Your task to perform on an android device: Show me popular videos on Youtube Image 0: 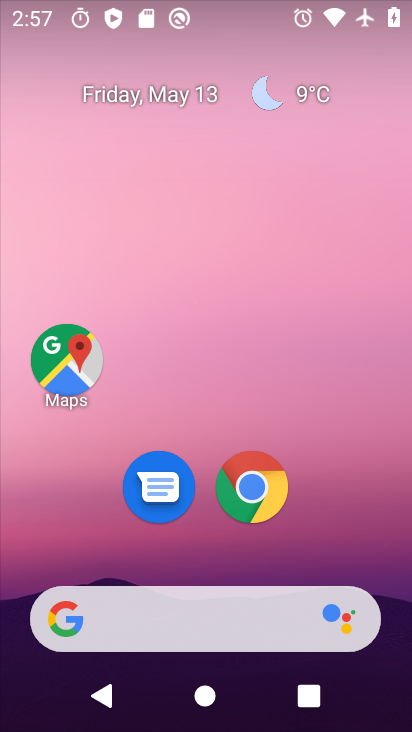
Step 0: drag from (231, 549) to (246, 123)
Your task to perform on an android device: Show me popular videos on Youtube Image 1: 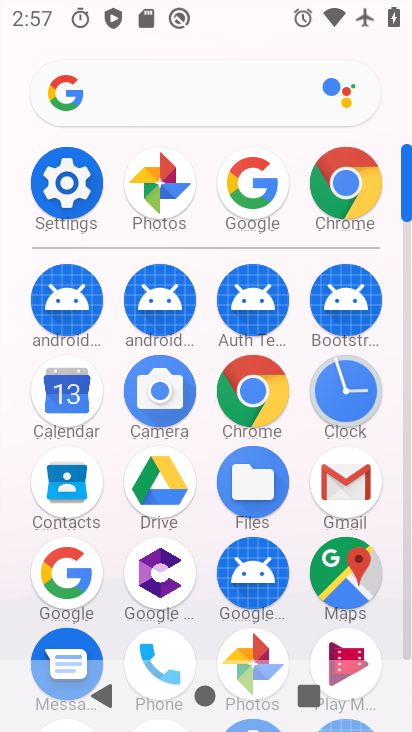
Step 1: drag from (209, 524) to (256, 86)
Your task to perform on an android device: Show me popular videos on Youtube Image 2: 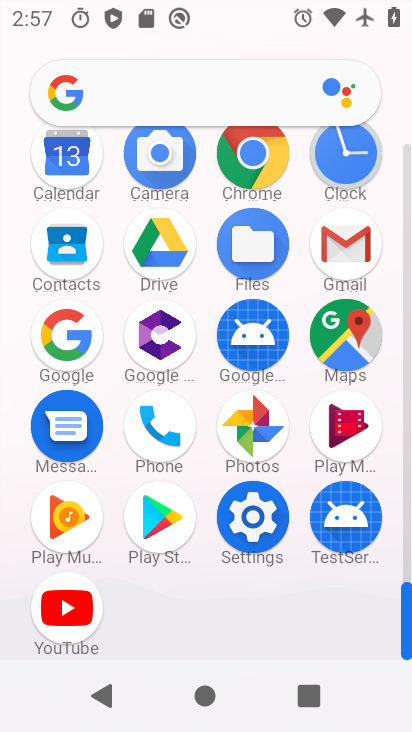
Step 2: click (69, 616)
Your task to perform on an android device: Show me popular videos on Youtube Image 3: 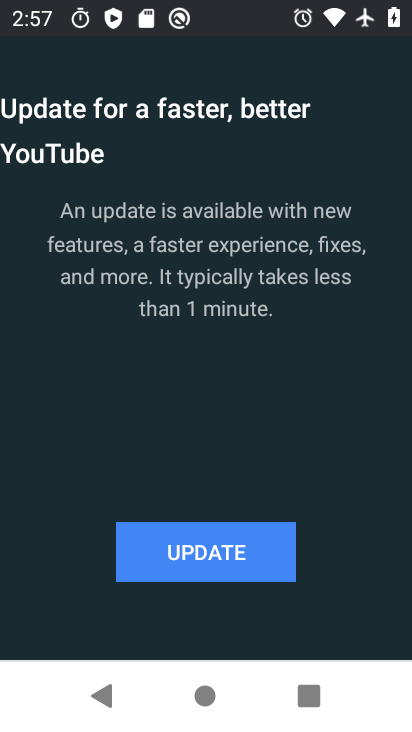
Step 3: click (203, 550)
Your task to perform on an android device: Show me popular videos on Youtube Image 4: 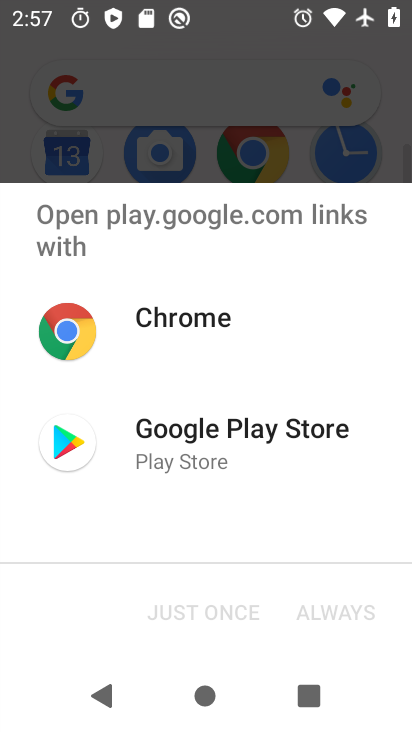
Step 4: click (194, 425)
Your task to perform on an android device: Show me popular videos on Youtube Image 5: 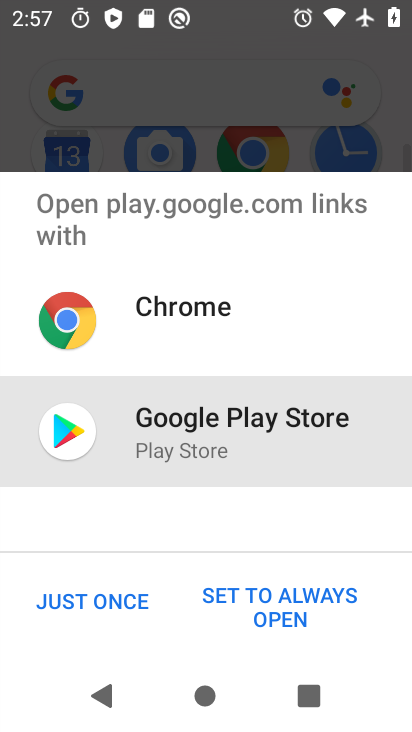
Step 5: click (135, 606)
Your task to perform on an android device: Show me popular videos on Youtube Image 6: 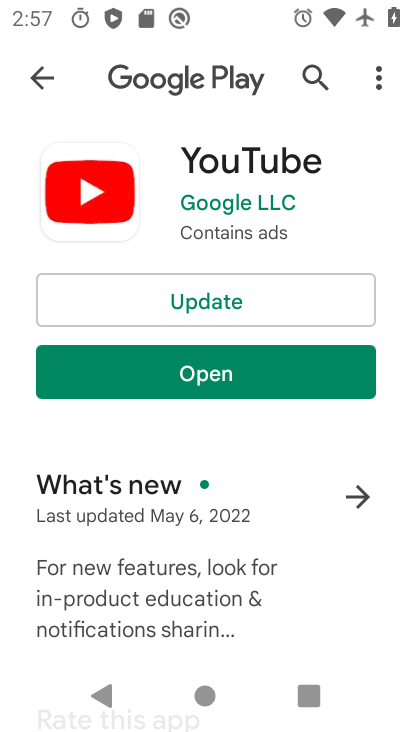
Step 6: click (206, 297)
Your task to perform on an android device: Show me popular videos on Youtube Image 7: 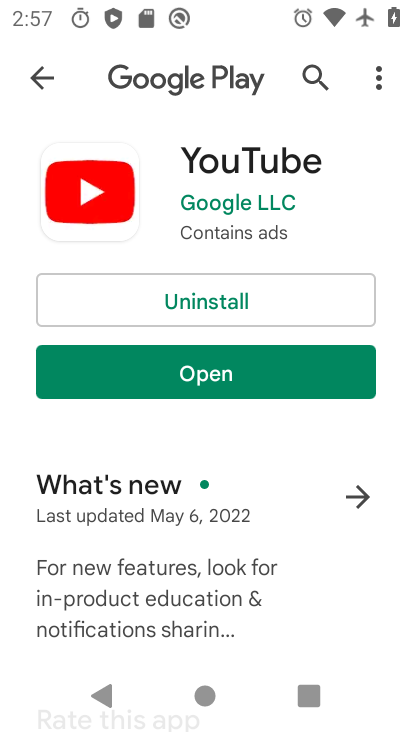
Step 7: click (237, 385)
Your task to perform on an android device: Show me popular videos on Youtube Image 8: 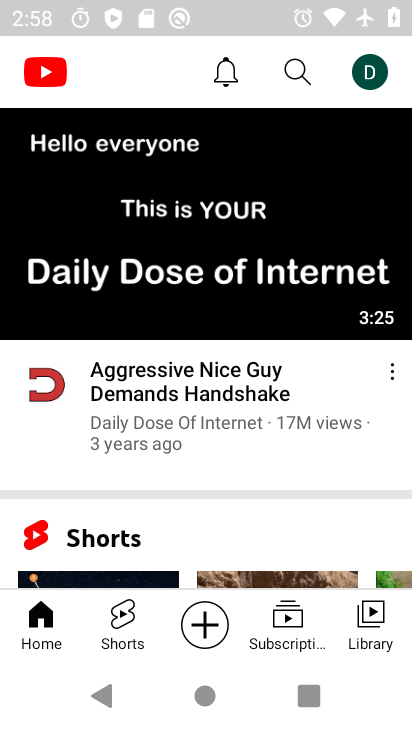
Step 8: task complete